Your task to perform on an android device: Open accessibility settings Image 0: 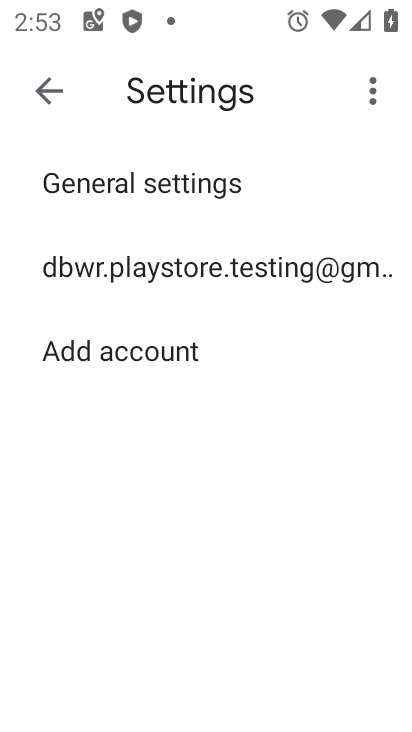
Step 0: press home button
Your task to perform on an android device: Open accessibility settings Image 1: 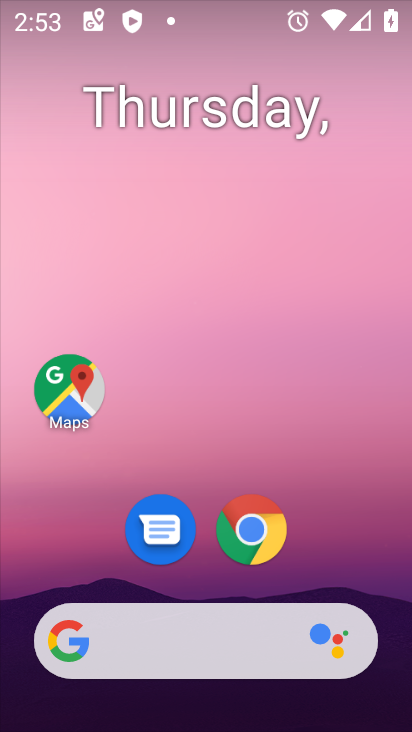
Step 1: drag from (264, 713) to (264, 152)
Your task to perform on an android device: Open accessibility settings Image 2: 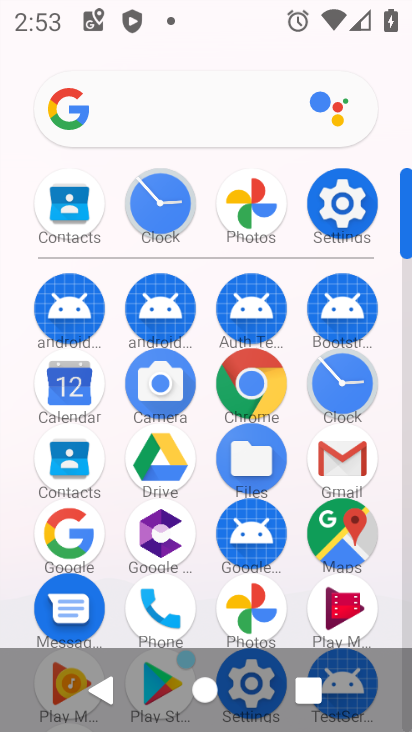
Step 2: click (359, 211)
Your task to perform on an android device: Open accessibility settings Image 3: 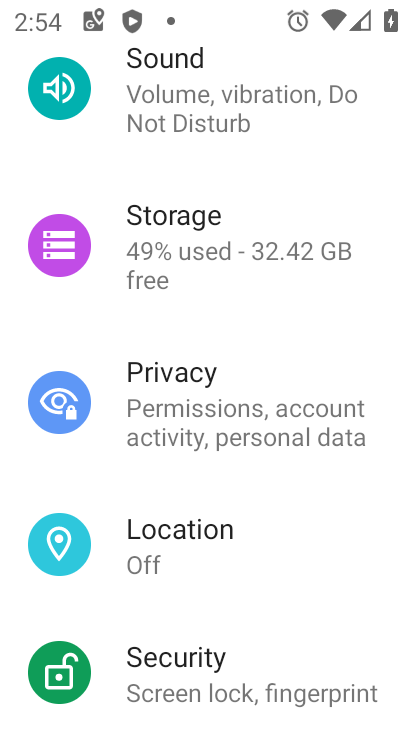
Step 3: drag from (189, 683) to (116, 65)
Your task to perform on an android device: Open accessibility settings Image 4: 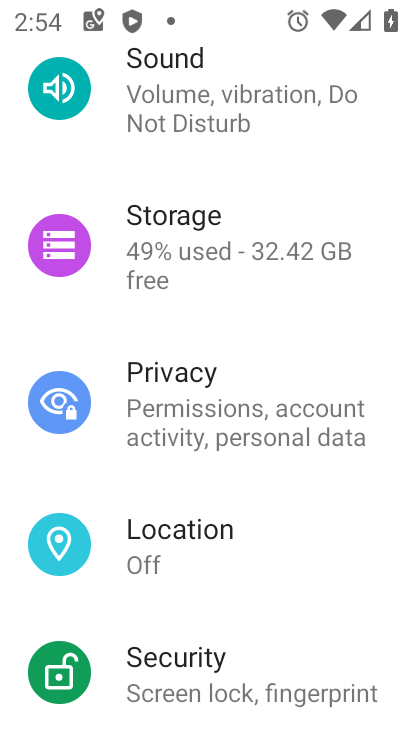
Step 4: drag from (310, 657) to (252, 123)
Your task to perform on an android device: Open accessibility settings Image 5: 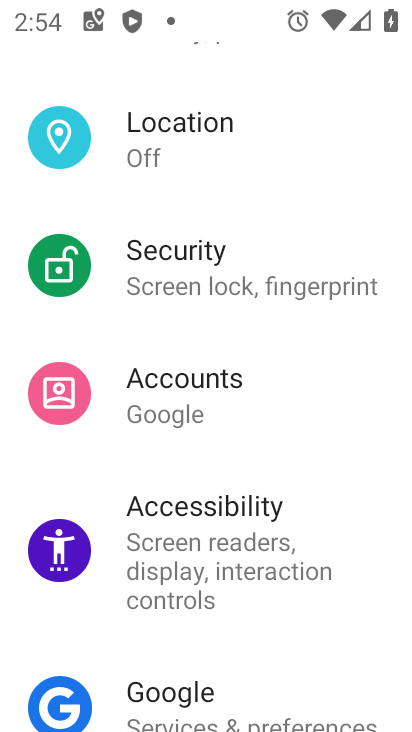
Step 5: click (225, 568)
Your task to perform on an android device: Open accessibility settings Image 6: 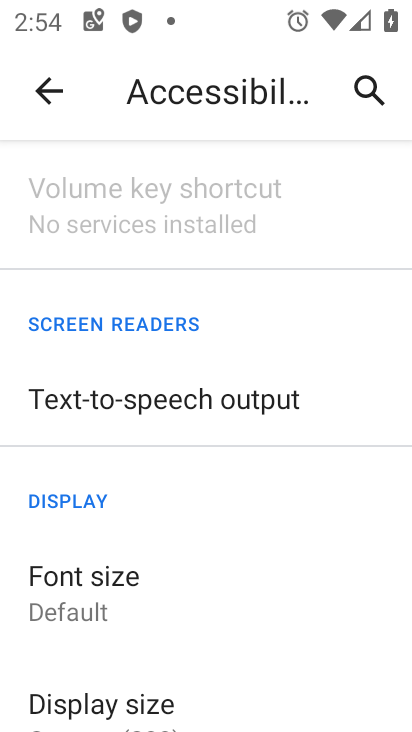
Step 6: task complete